Your task to perform on an android device: Go to Amazon Image 0: 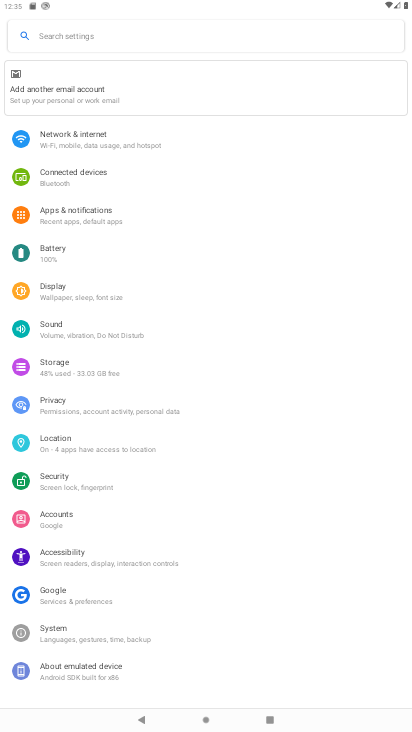
Step 0: drag from (199, 411) to (134, 77)
Your task to perform on an android device: Go to Amazon Image 1: 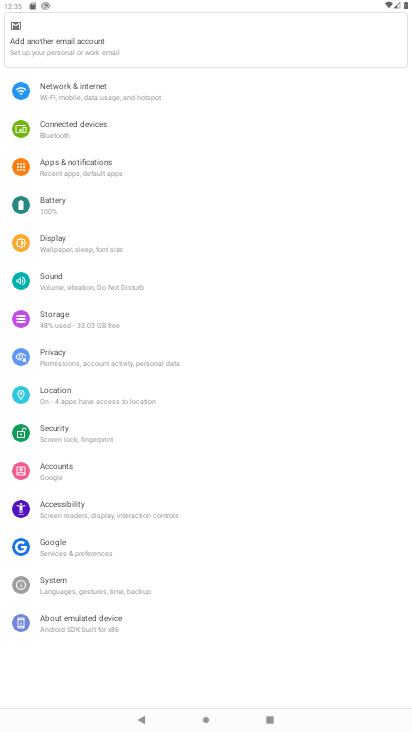
Step 1: press back button
Your task to perform on an android device: Go to Amazon Image 2: 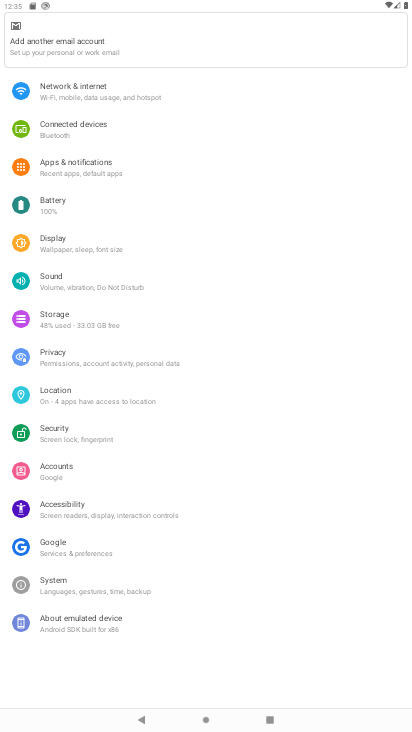
Step 2: press home button
Your task to perform on an android device: Go to Amazon Image 3: 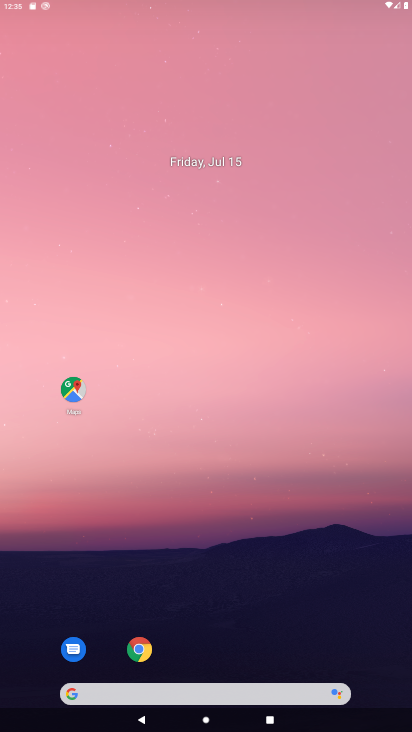
Step 3: press back button
Your task to perform on an android device: Go to Amazon Image 4: 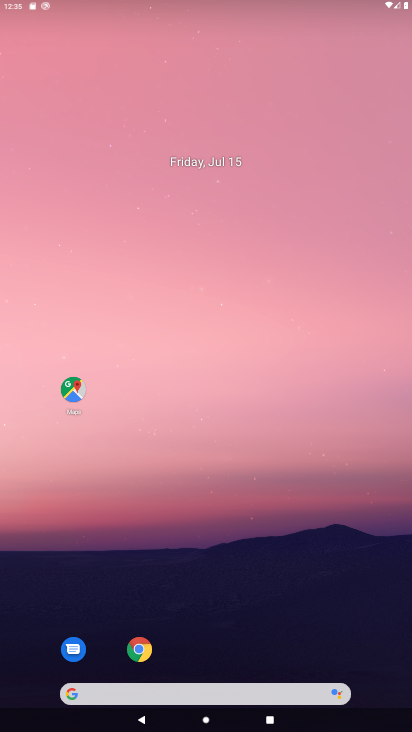
Step 4: press home button
Your task to perform on an android device: Go to Amazon Image 5: 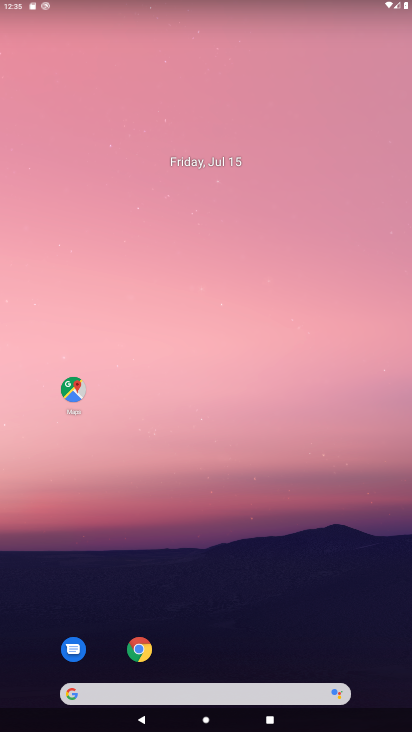
Step 5: press back button
Your task to perform on an android device: Go to Amazon Image 6: 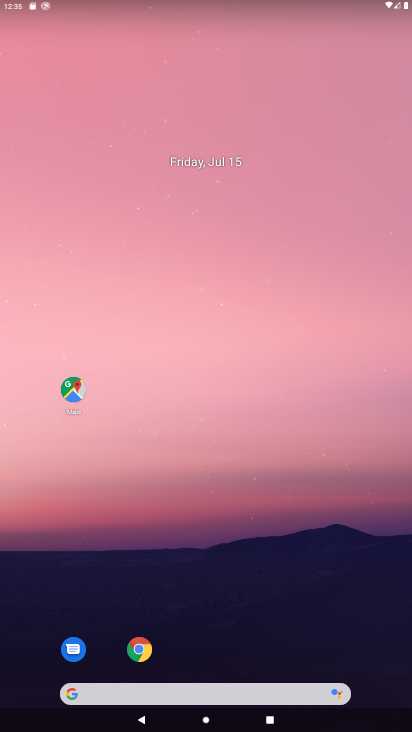
Step 6: press back button
Your task to perform on an android device: Go to Amazon Image 7: 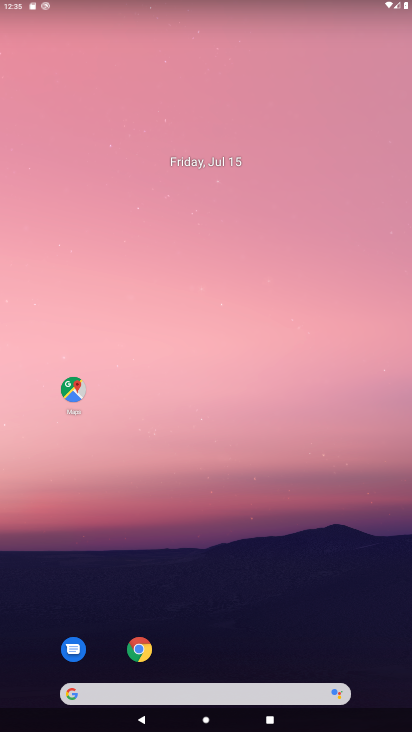
Step 7: drag from (244, 456) to (117, 35)
Your task to perform on an android device: Go to Amazon Image 8: 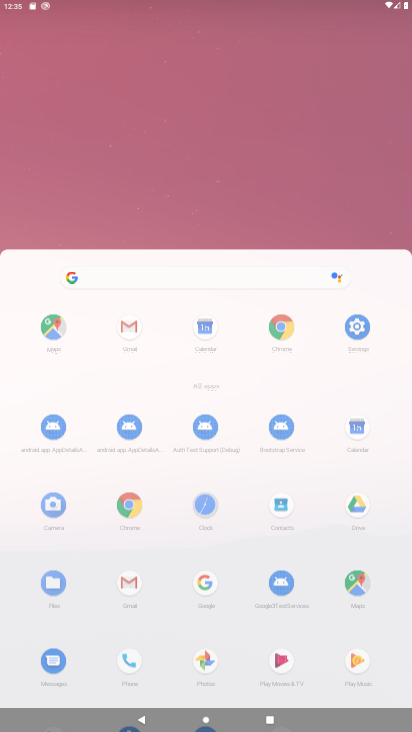
Step 8: drag from (243, 554) to (200, 12)
Your task to perform on an android device: Go to Amazon Image 9: 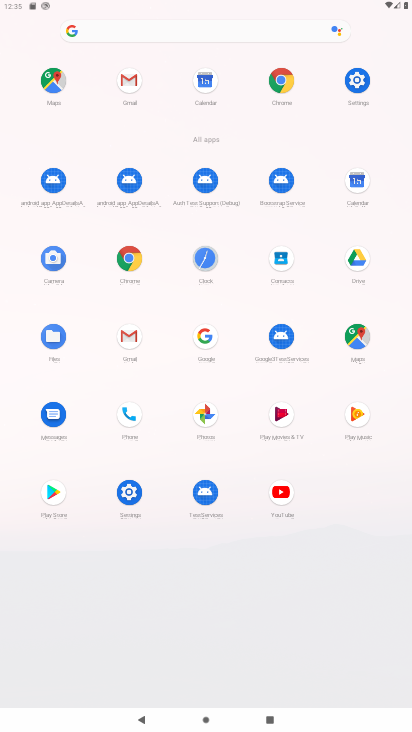
Step 9: drag from (252, 536) to (219, 27)
Your task to perform on an android device: Go to Amazon Image 10: 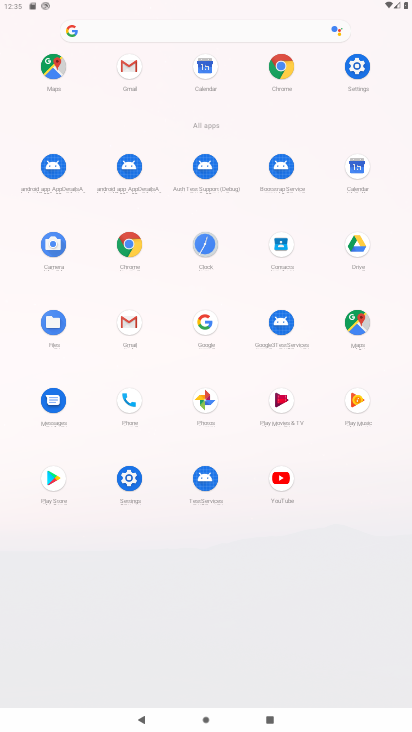
Step 10: drag from (278, 359) to (242, 45)
Your task to perform on an android device: Go to Amazon Image 11: 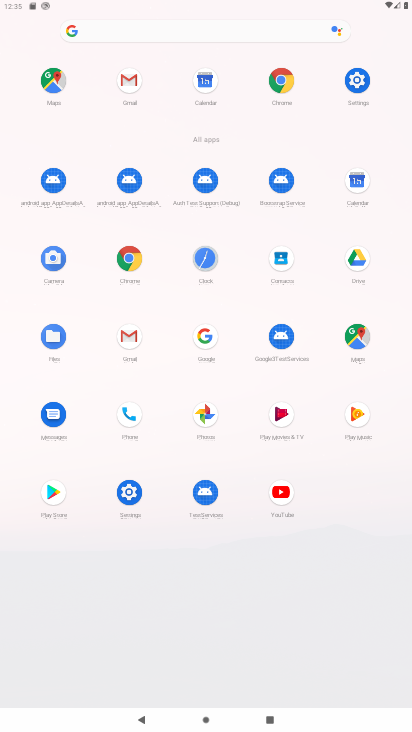
Step 11: drag from (264, 516) to (231, 194)
Your task to perform on an android device: Go to Amazon Image 12: 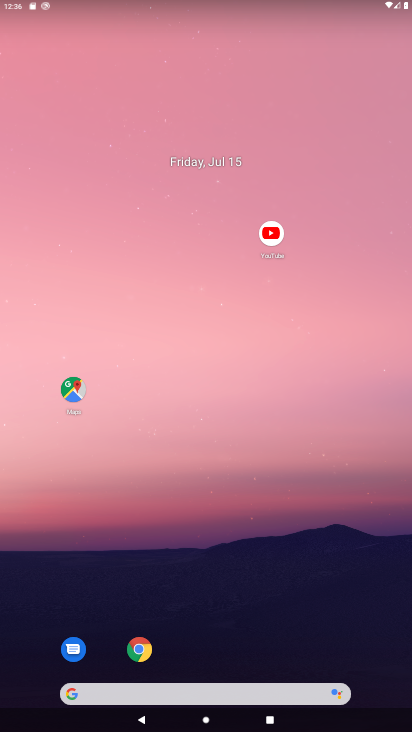
Step 12: click (281, 85)
Your task to perform on an android device: Go to Amazon Image 13: 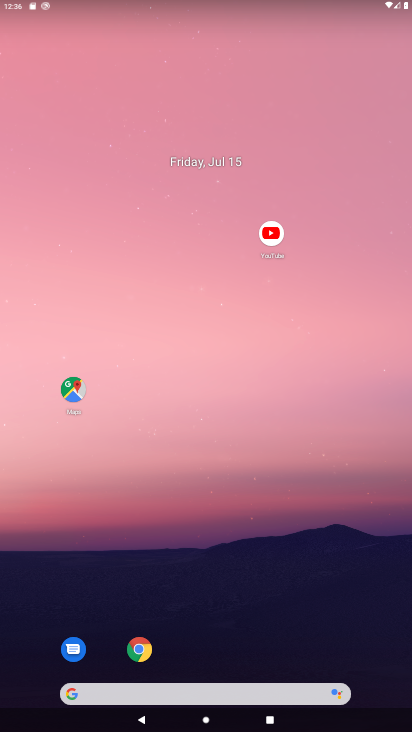
Step 13: click (281, 85)
Your task to perform on an android device: Go to Amazon Image 14: 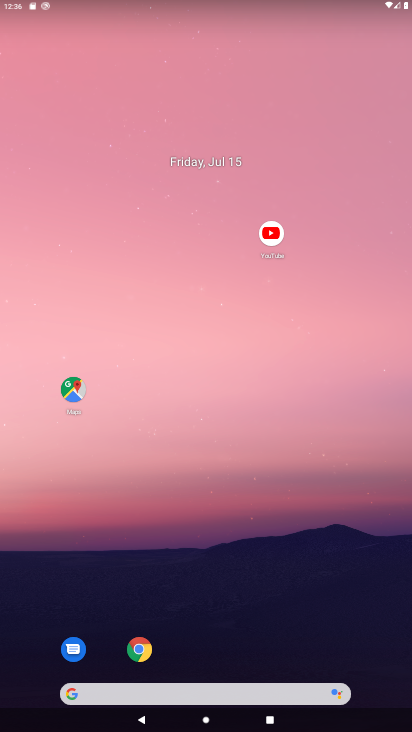
Step 14: click (281, 88)
Your task to perform on an android device: Go to Amazon Image 15: 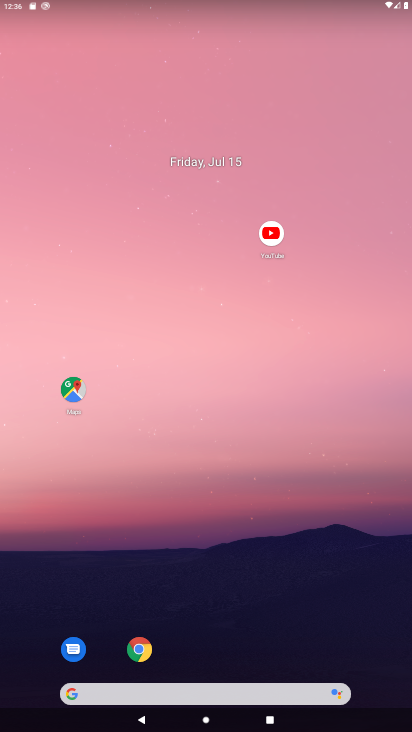
Step 15: click (264, 100)
Your task to perform on an android device: Go to Amazon Image 16: 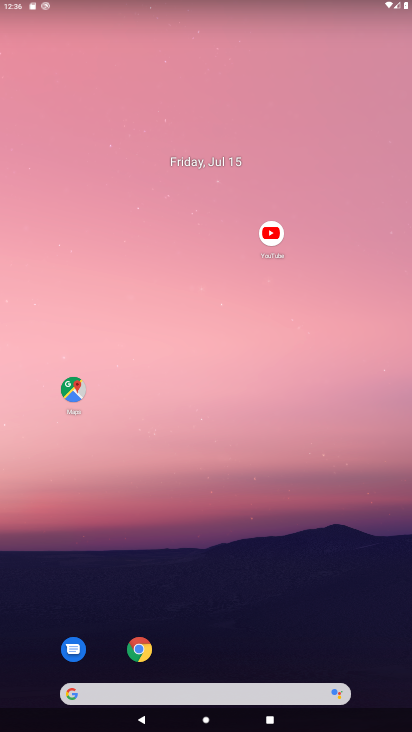
Step 16: task complete